Your task to perform on an android device: turn notification dots on Image 0: 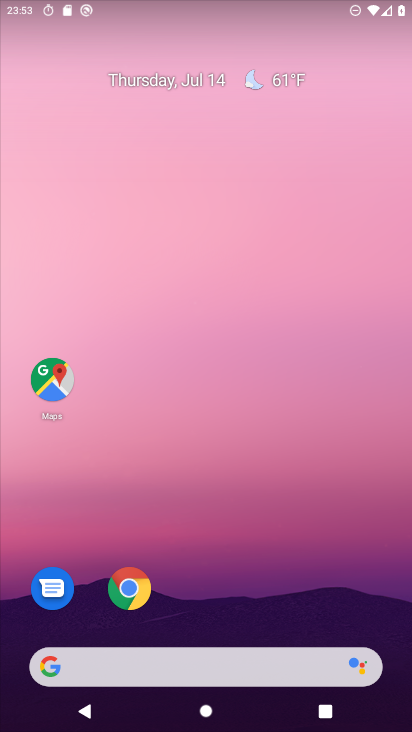
Step 0: drag from (231, 597) to (341, 13)
Your task to perform on an android device: turn notification dots on Image 1: 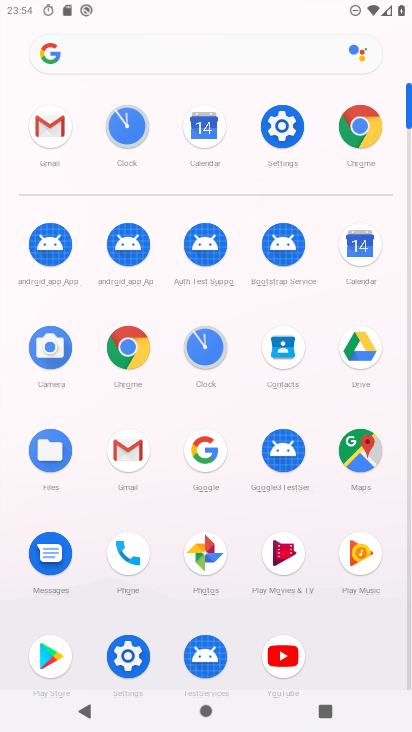
Step 1: click (125, 671)
Your task to perform on an android device: turn notification dots on Image 2: 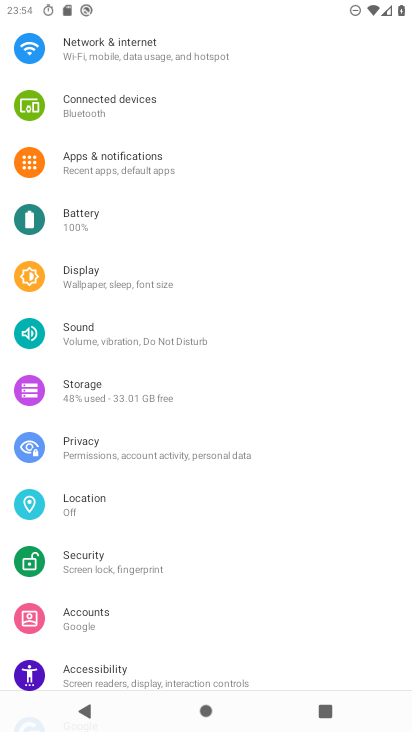
Step 2: click (95, 168)
Your task to perform on an android device: turn notification dots on Image 3: 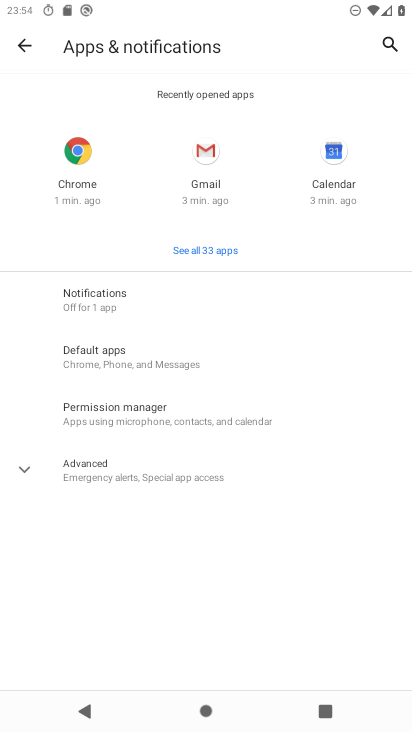
Step 3: click (113, 308)
Your task to perform on an android device: turn notification dots on Image 4: 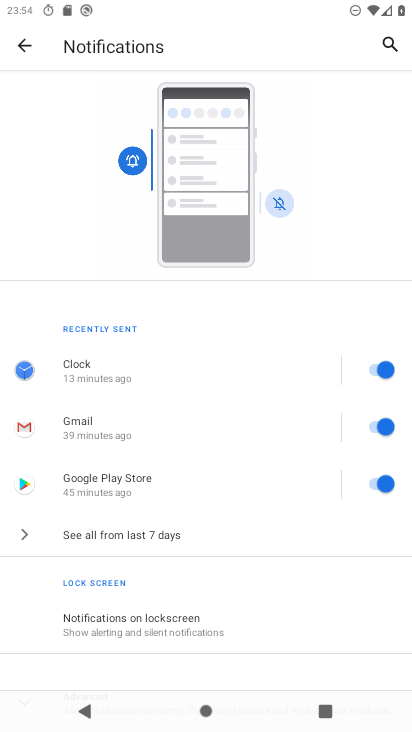
Step 4: drag from (144, 640) to (204, 375)
Your task to perform on an android device: turn notification dots on Image 5: 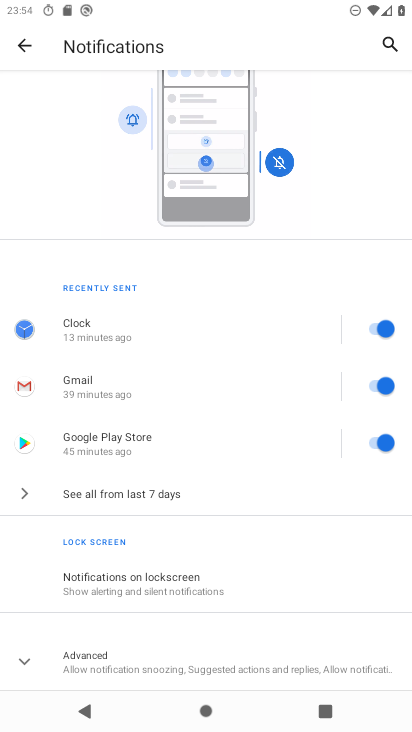
Step 5: click (169, 664)
Your task to perform on an android device: turn notification dots on Image 6: 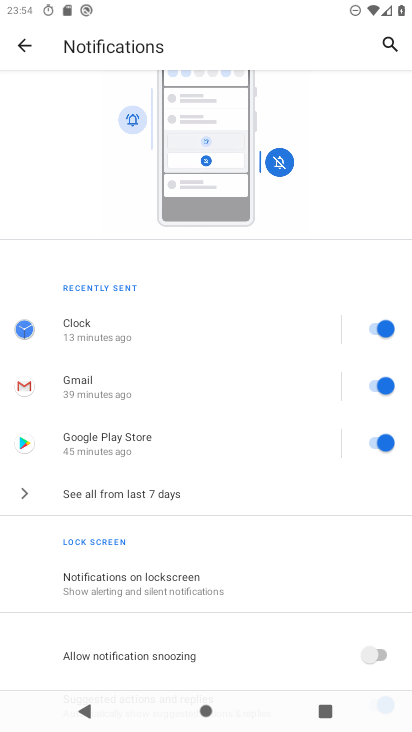
Step 6: task complete